Your task to perform on an android device: Show the shopping cart on newegg.com. Search for dell xps on newegg.com, select the first entry, add it to the cart, then select checkout. Image 0: 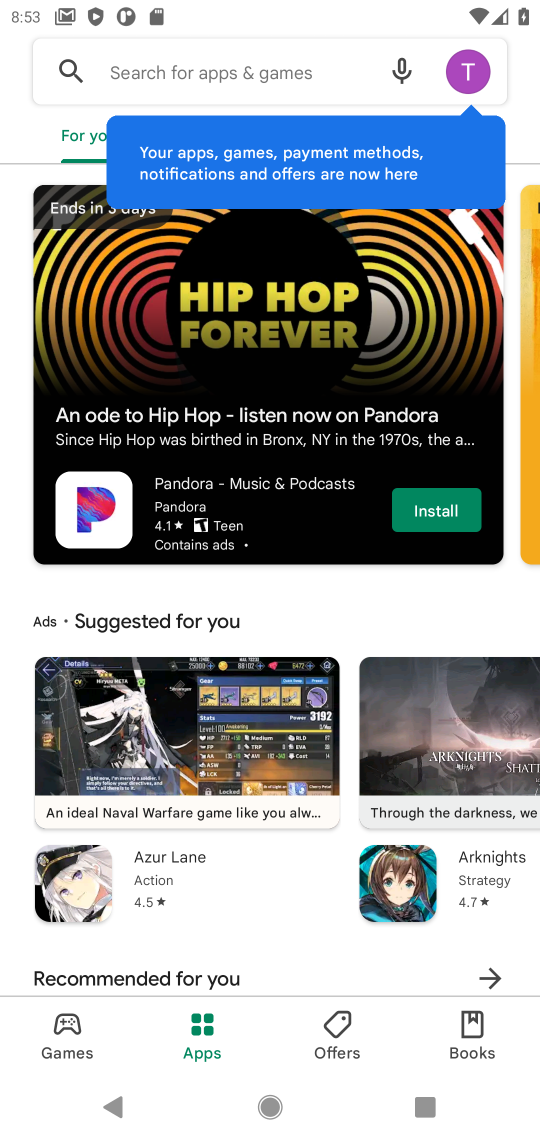
Step 0: press home button
Your task to perform on an android device: Show the shopping cart on newegg.com. Search for dell xps on newegg.com, select the first entry, add it to the cart, then select checkout. Image 1: 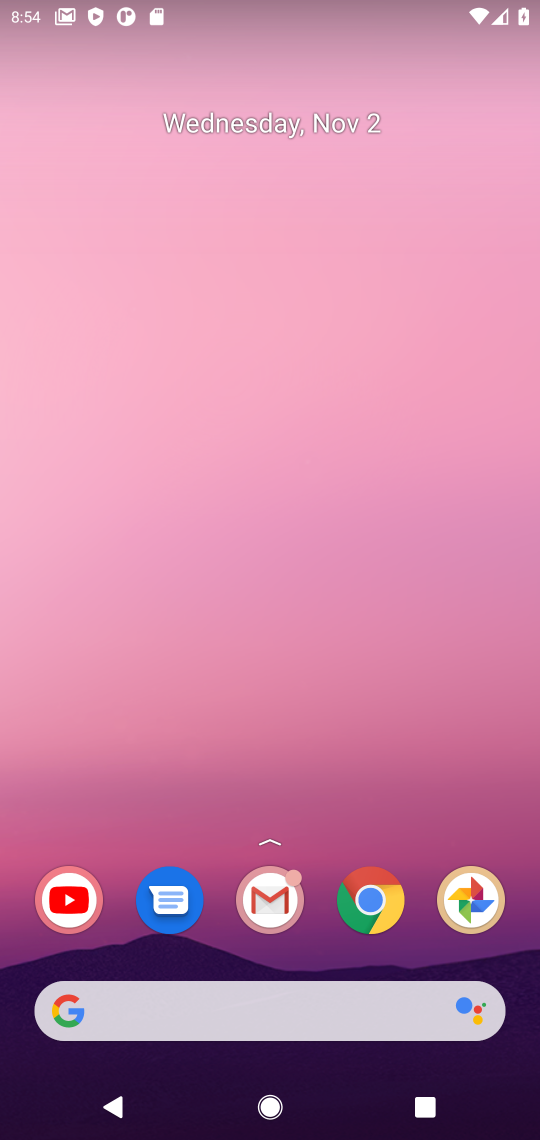
Step 1: click (363, 921)
Your task to perform on an android device: Show the shopping cart on newegg.com. Search for dell xps on newegg.com, select the first entry, add it to the cart, then select checkout. Image 2: 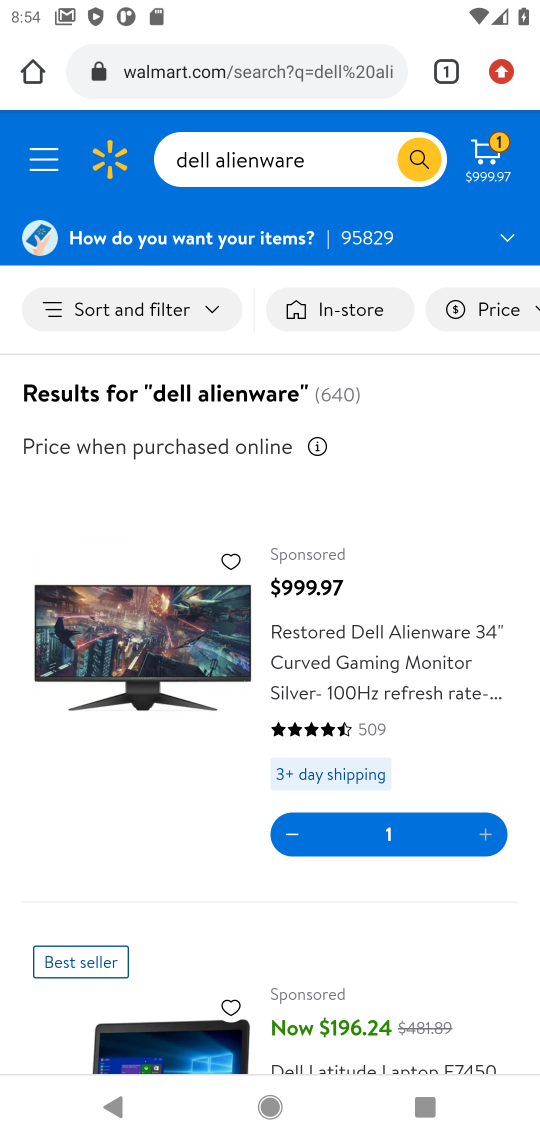
Step 2: click (276, 59)
Your task to perform on an android device: Show the shopping cart on newegg.com. Search for dell xps on newegg.com, select the first entry, add it to the cart, then select checkout. Image 3: 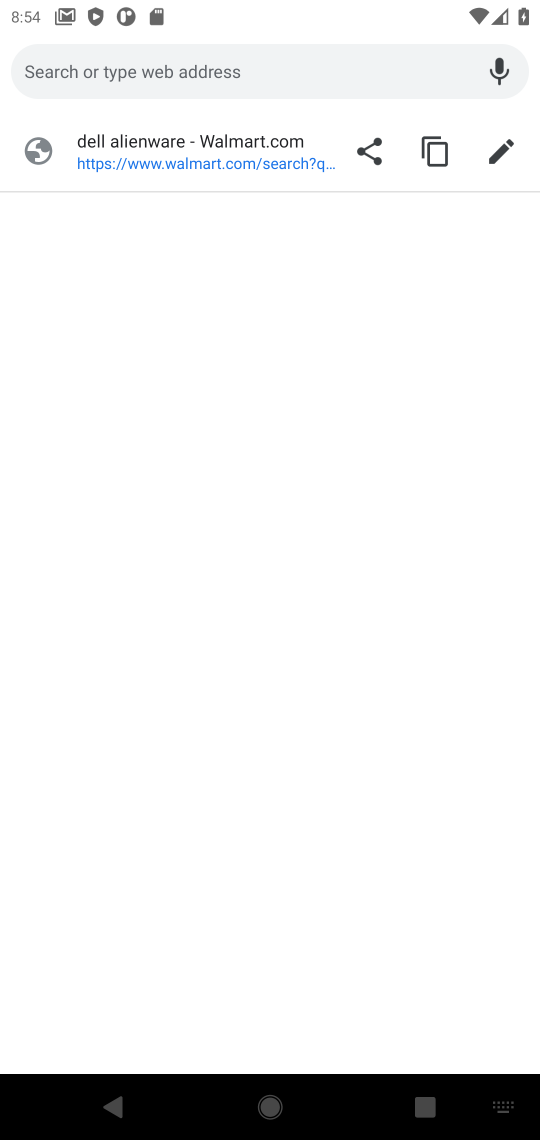
Step 3: type "newegg"
Your task to perform on an android device: Show the shopping cart on newegg.com. Search for dell xps on newegg.com, select the first entry, add it to the cart, then select checkout. Image 4: 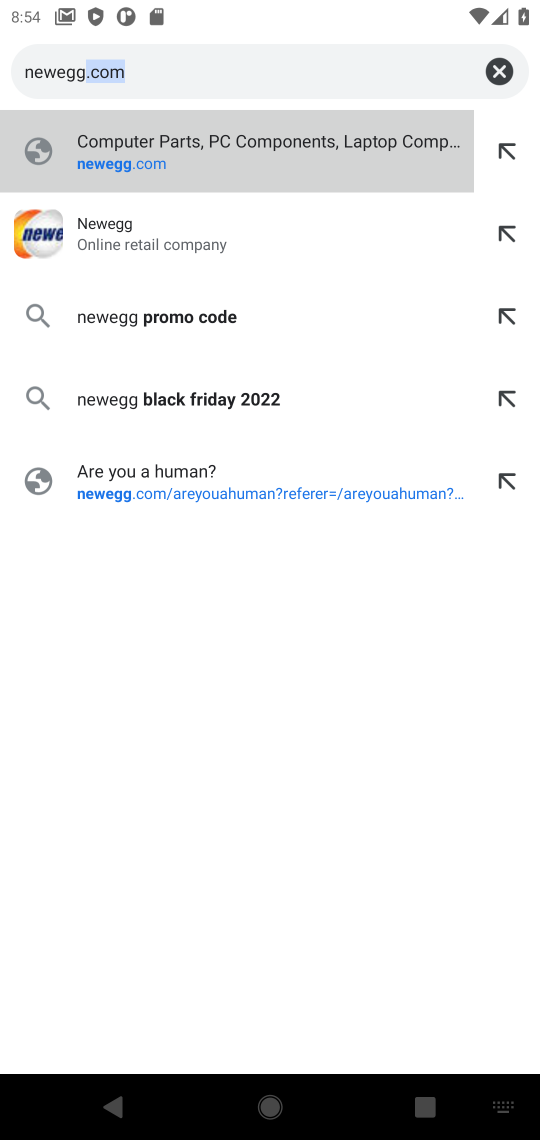
Step 4: click (159, 236)
Your task to perform on an android device: Show the shopping cart on newegg.com. Search for dell xps on newegg.com, select the first entry, add it to the cart, then select checkout. Image 5: 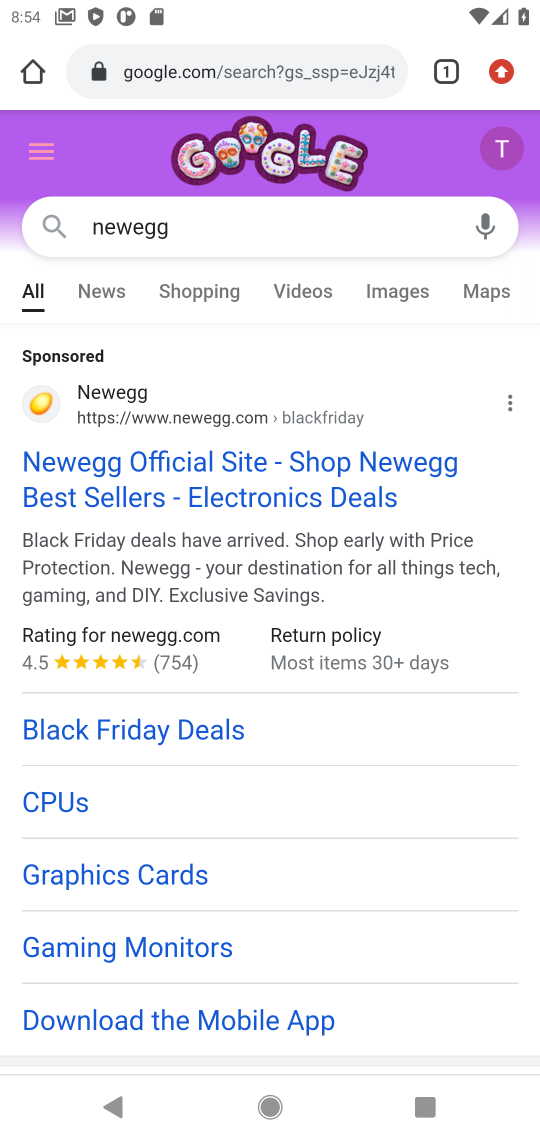
Step 5: click (126, 466)
Your task to perform on an android device: Show the shopping cart on newegg.com. Search for dell xps on newegg.com, select the first entry, add it to the cart, then select checkout. Image 6: 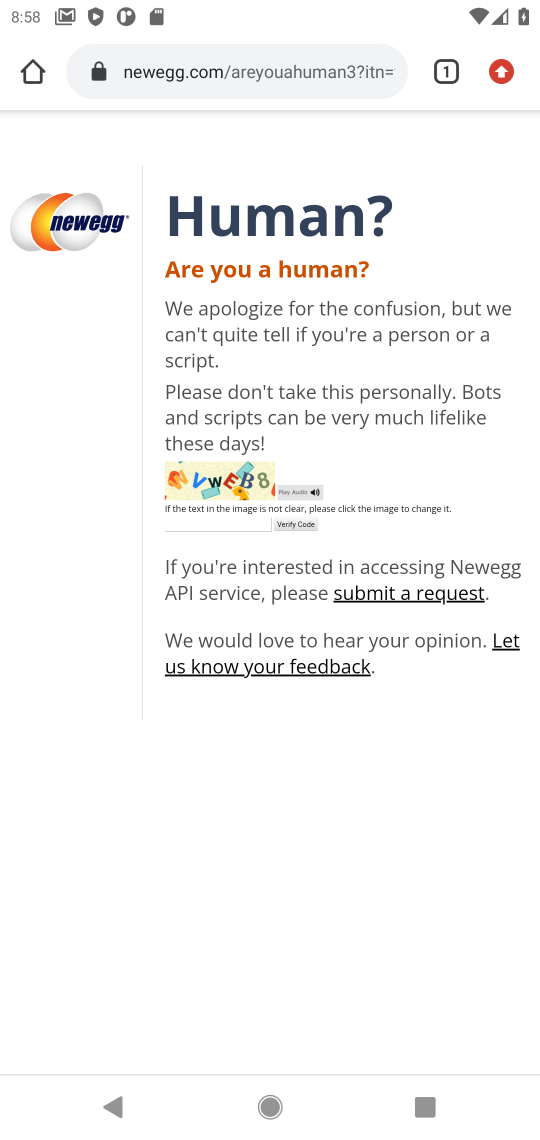
Step 6: task complete